Your task to perform on an android device: Go to location settings Image 0: 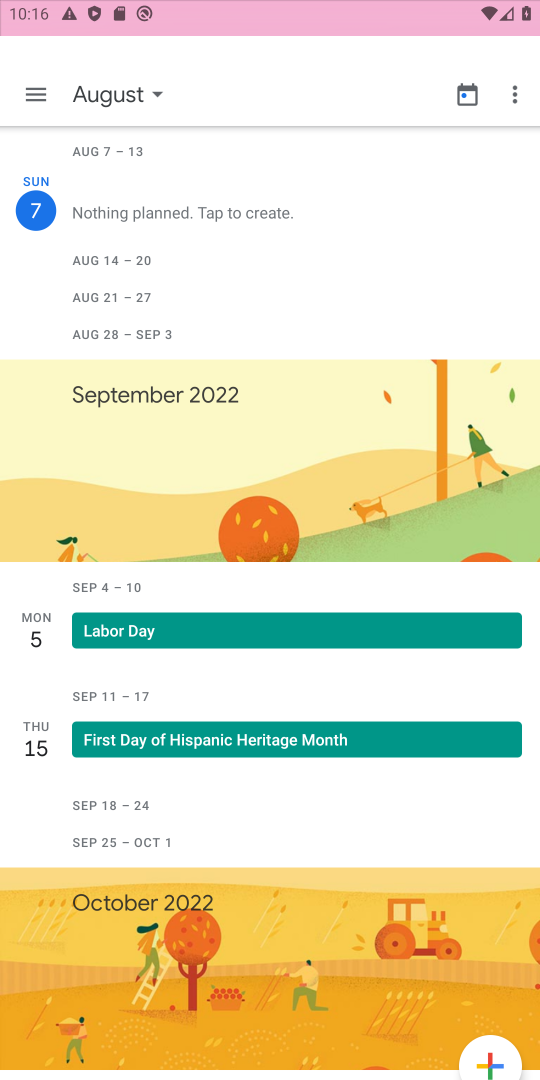
Step 0: press back button
Your task to perform on an android device: Go to location settings Image 1: 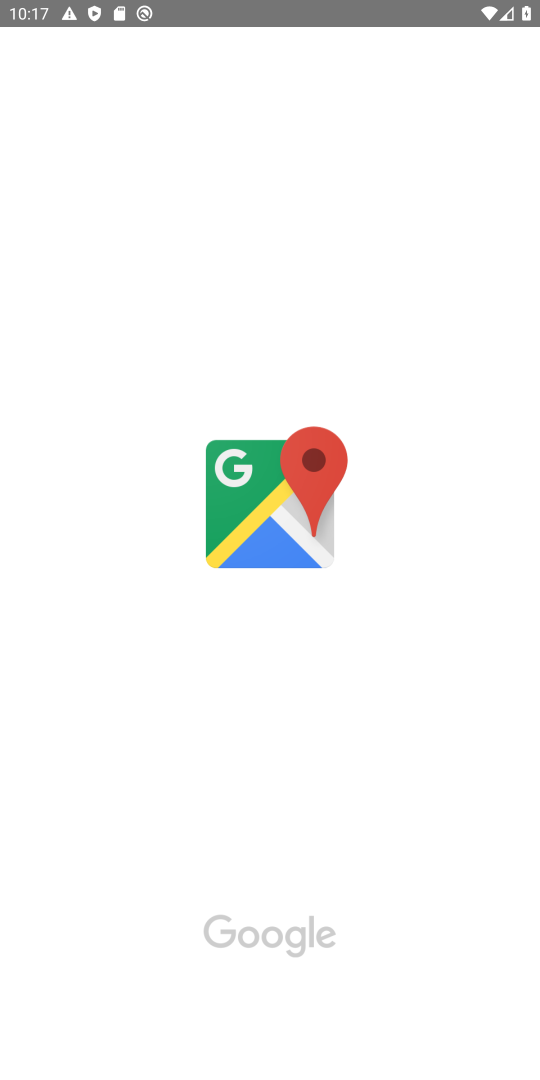
Step 1: press back button
Your task to perform on an android device: Go to location settings Image 2: 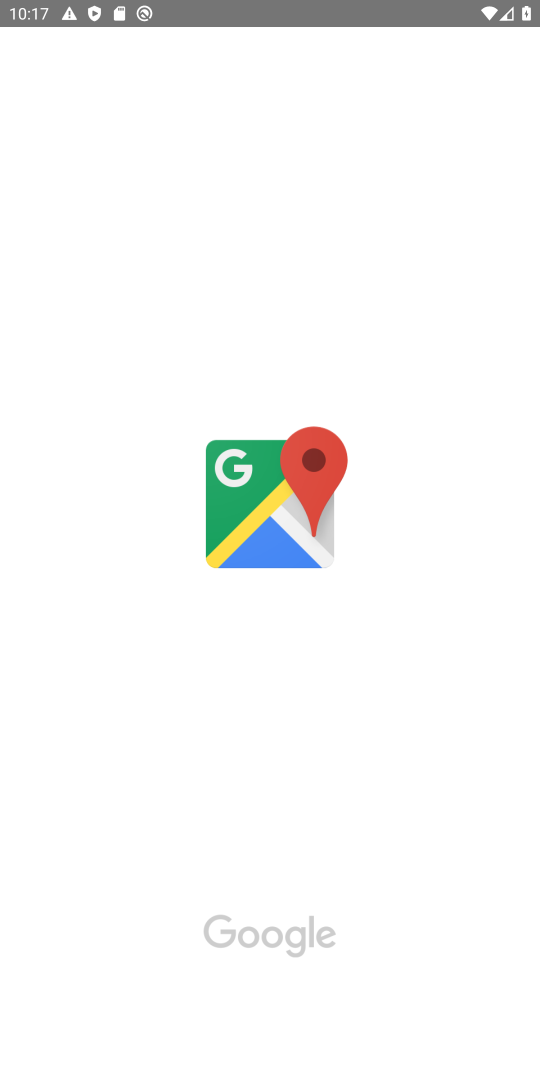
Step 2: press home button
Your task to perform on an android device: Go to location settings Image 3: 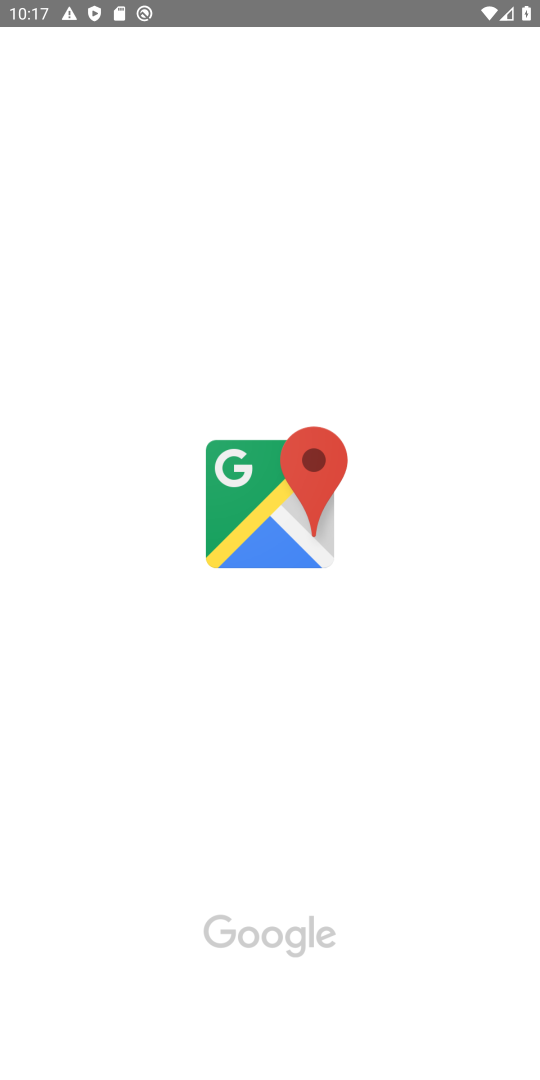
Step 3: press back button
Your task to perform on an android device: Go to location settings Image 4: 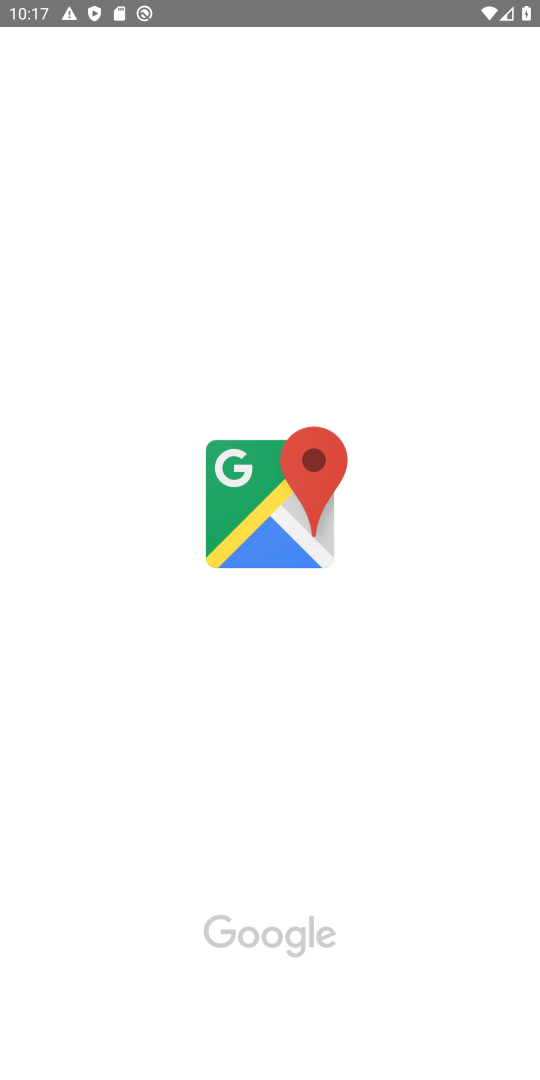
Step 4: press home button
Your task to perform on an android device: Go to location settings Image 5: 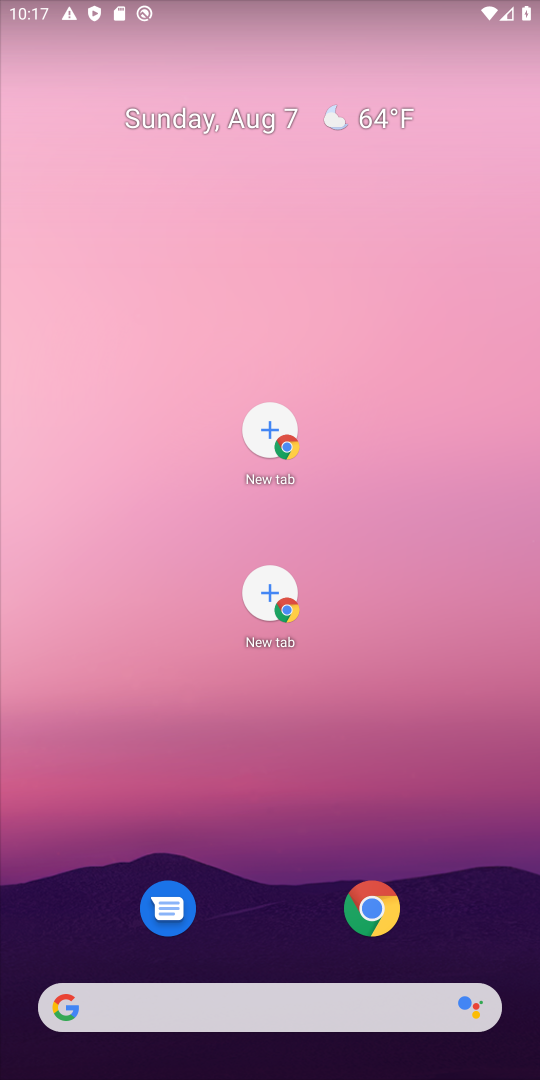
Step 5: drag from (276, 8) to (232, 123)
Your task to perform on an android device: Go to location settings Image 6: 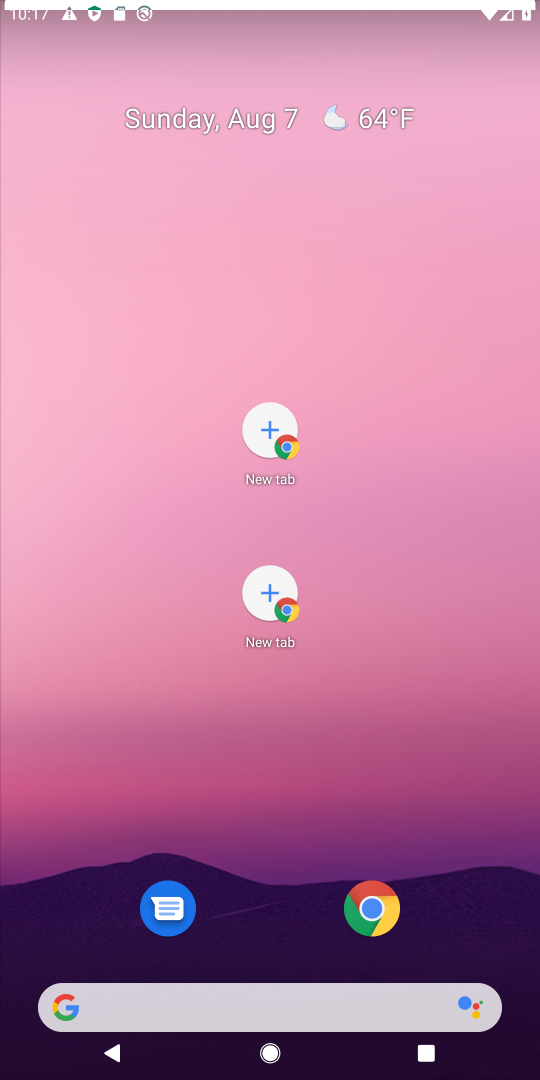
Step 6: drag from (261, 273) to (396, 281)
Your task to perform on an android device: Go to location settings Image 7: 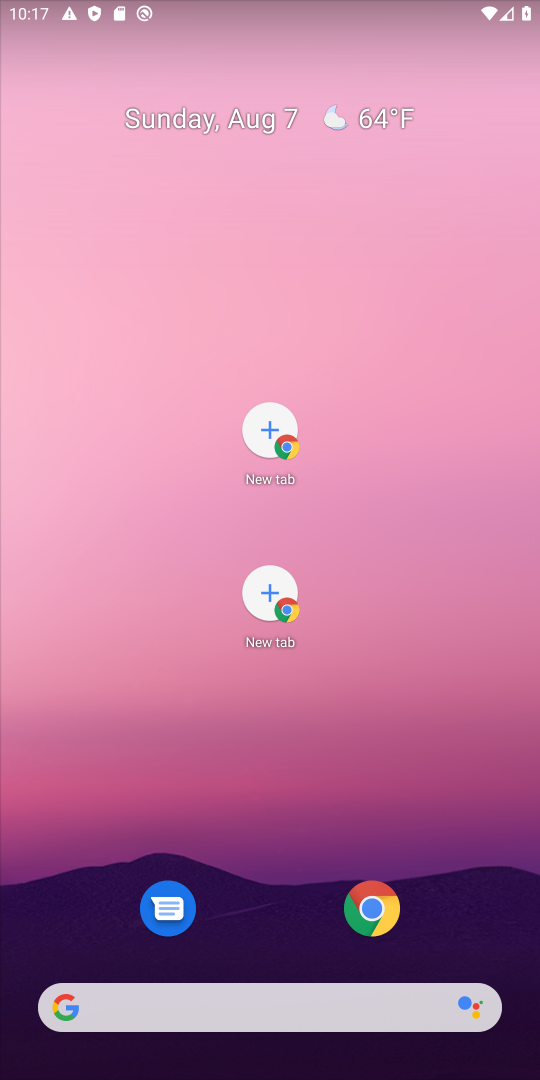
Step 7: press back button
Your task to perform on an android device: Go to location settings Image 8: 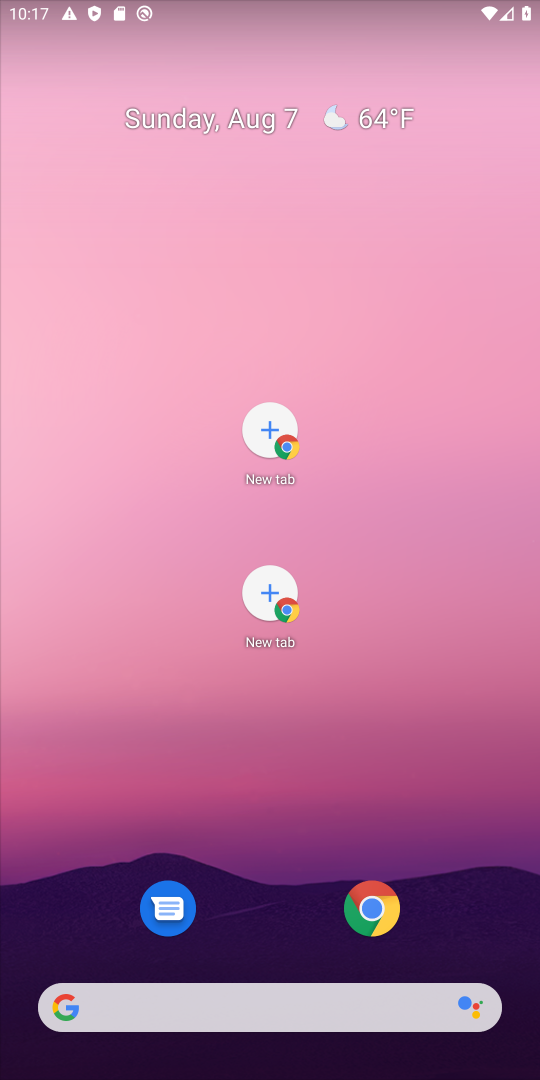
Step 8: press back button
Your task to perform on an android device: Go to location settings Image 9: 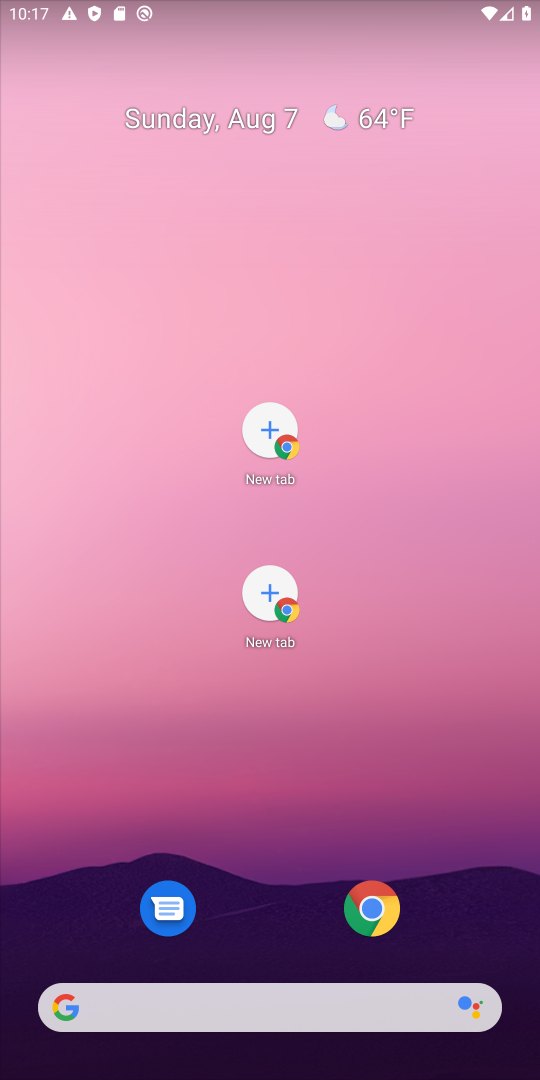
Step 9: press back button
Your task to perform on an android device: Go to location settings Image 10: 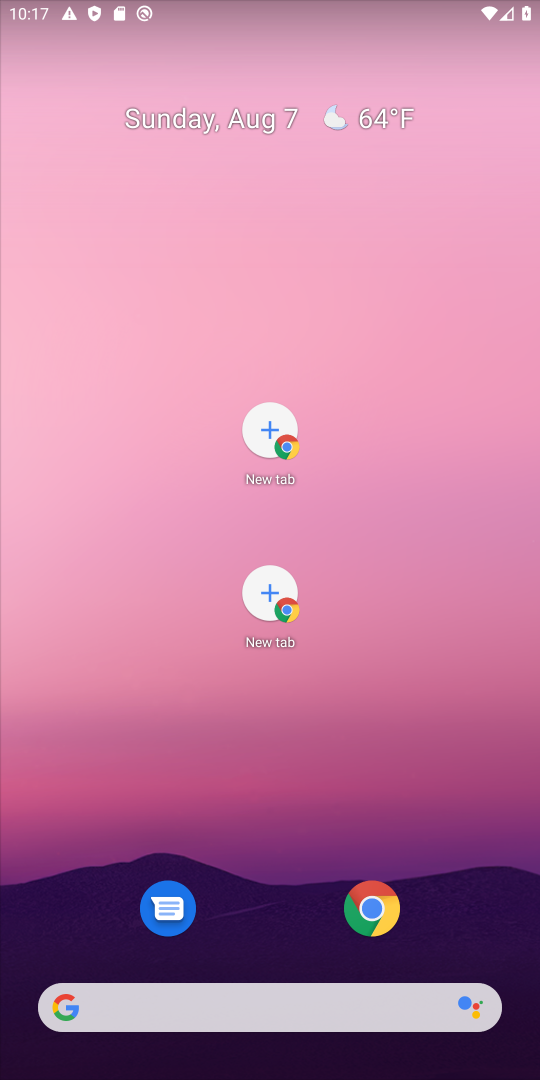
Step 10: press back button
Your task to perform on an android device: Go to location settings Image 11: 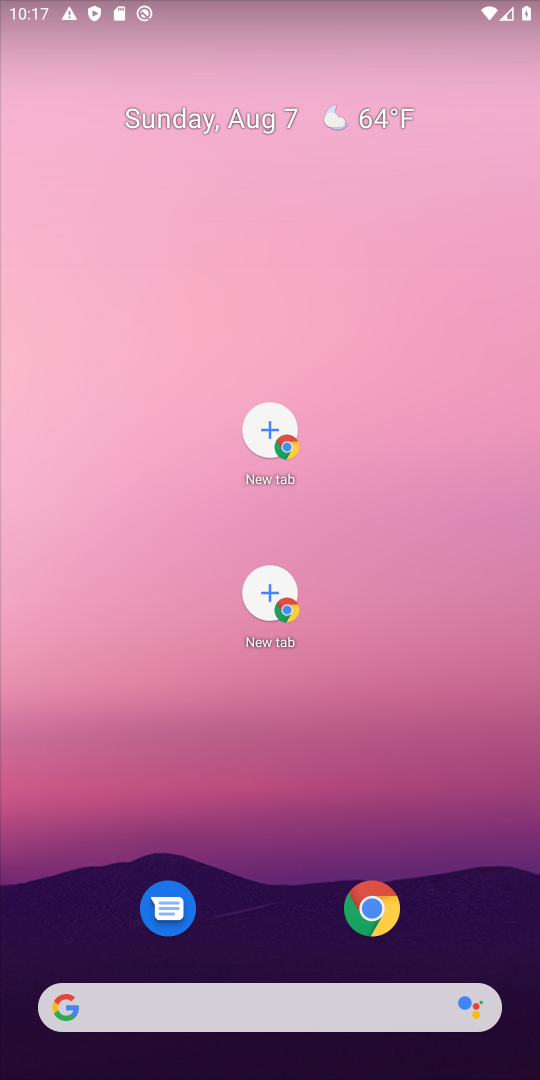
Step 11: press back button
Your task to perform on an android device: Go to location settings Image 12: 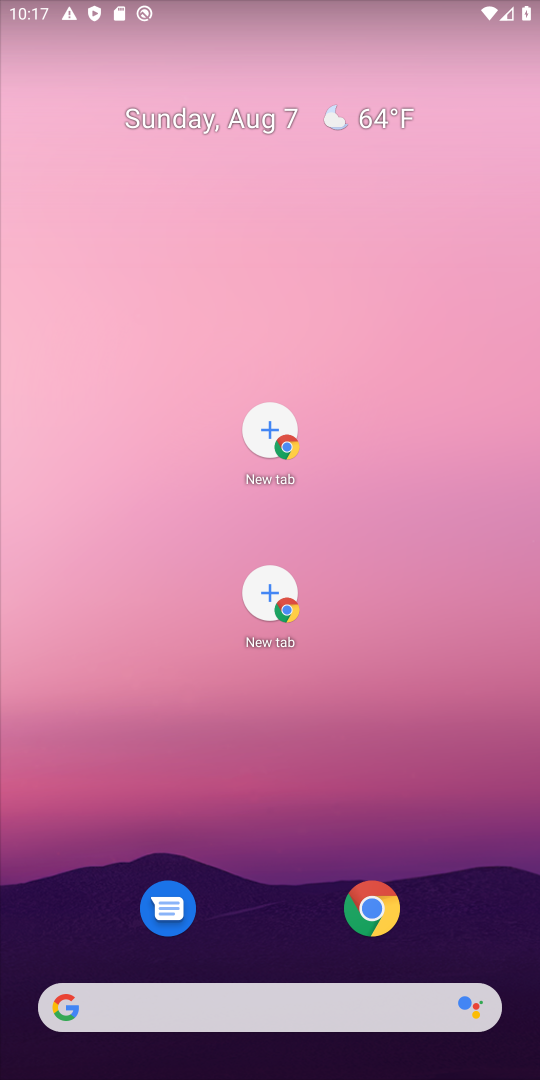
Step 12: press back button
Your task to perform on an android device: Go to location settings Image 13: 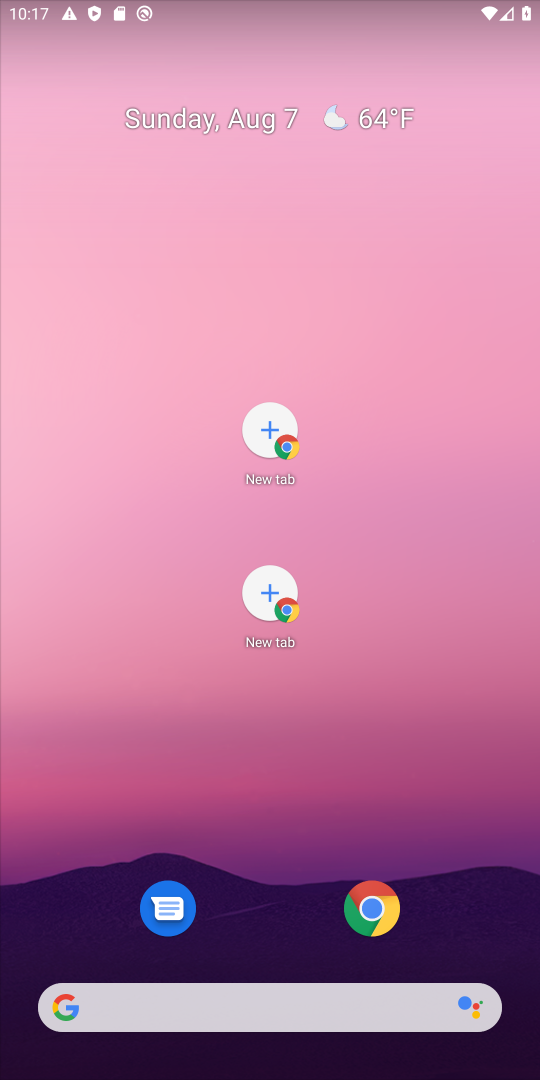
Step 13: press back button
Your task to perform on an android device: Go to location settings Image 14: 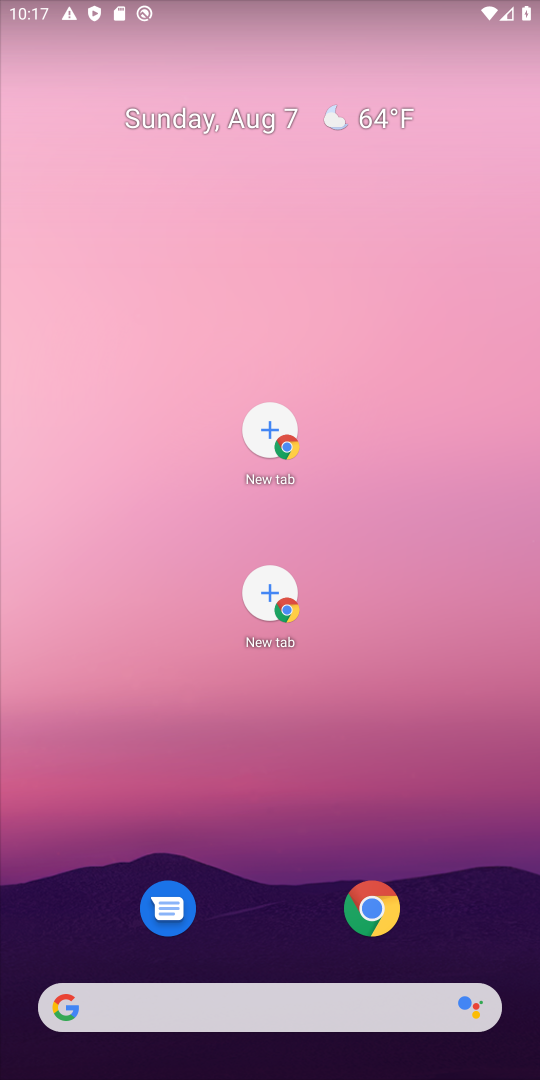
Step 14: press home button
Your task to perform on an android device: Go to location settings Image 15: 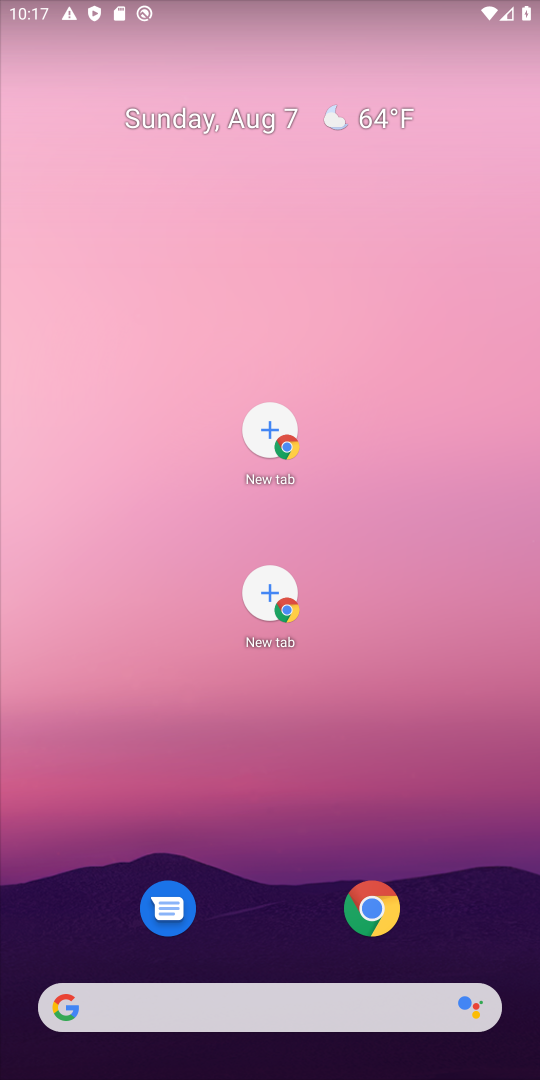
Step 15: press back button
Your task to perform on an android device: Go to location settings Image 16: 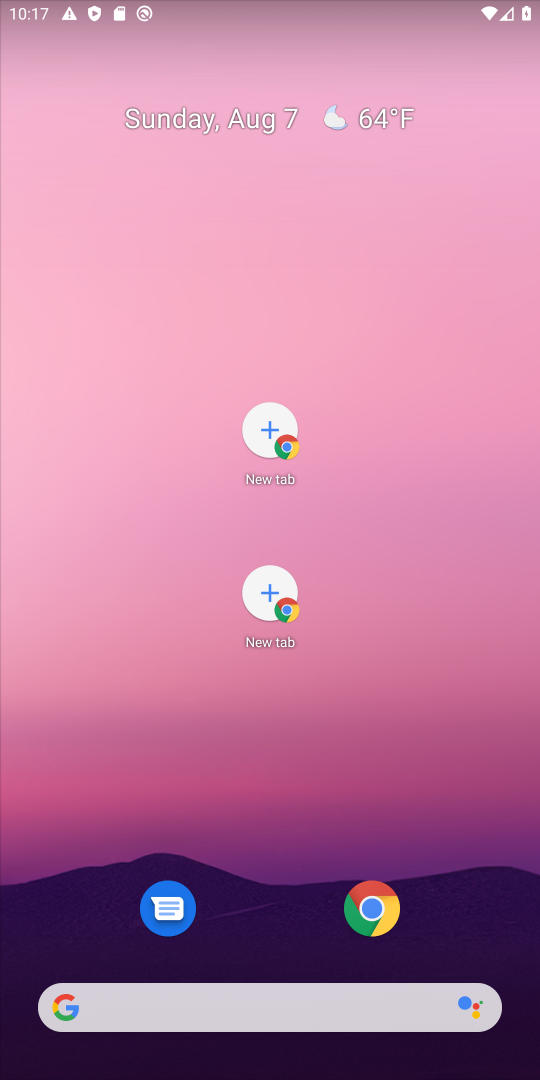
Step 16: drag from (406, 59) to (269, 95)
Your task to perform on an android device: Go to location settings Image 17: 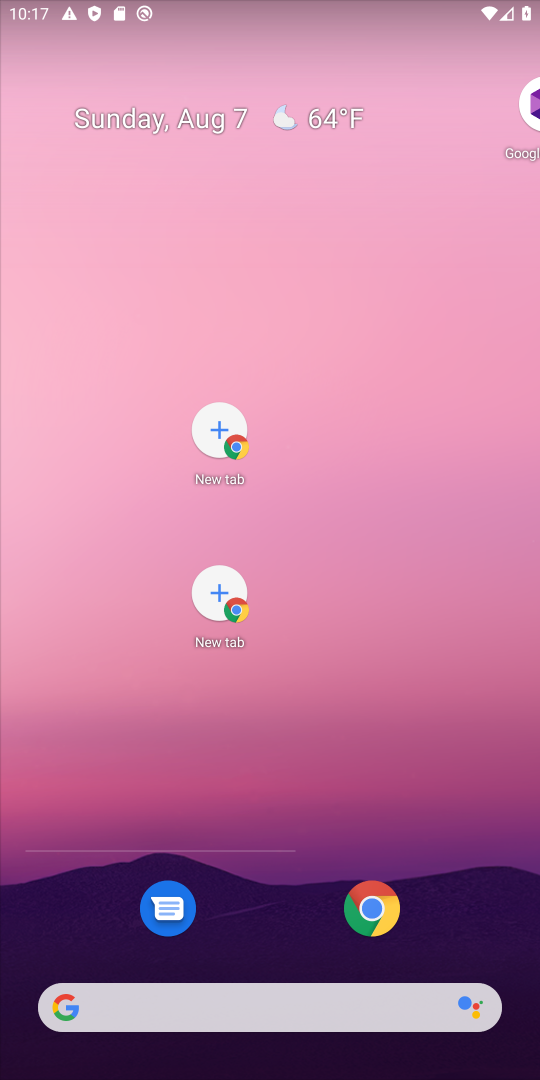
Step 17: drag from (261, 373) to (261, 284)
Your task to perform on an android device: Go to location settings Image 18: 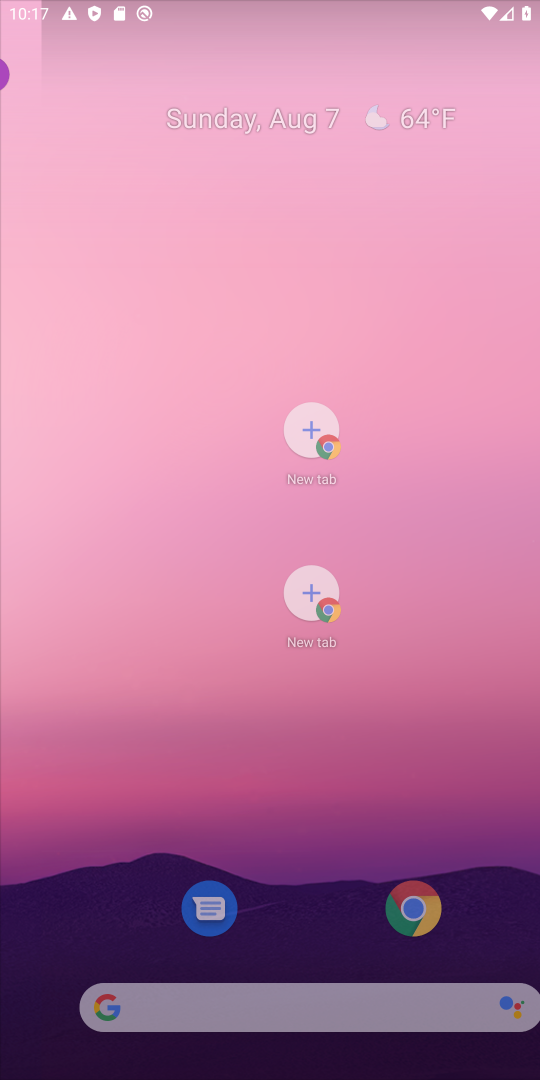
Step 18: drag from (312, 679) to (250, 227)
Your task to perform on an android device: Go to location settings Image 19: 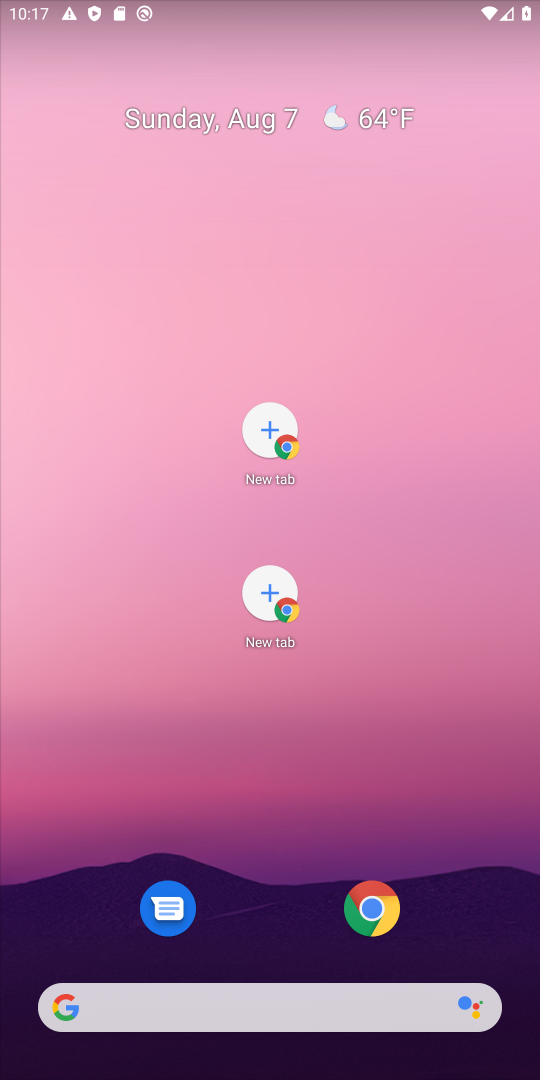
Step 19: drag from (253, 652) to (222, 164)
Your task to perform on an android device: Go to location settings Image 20: 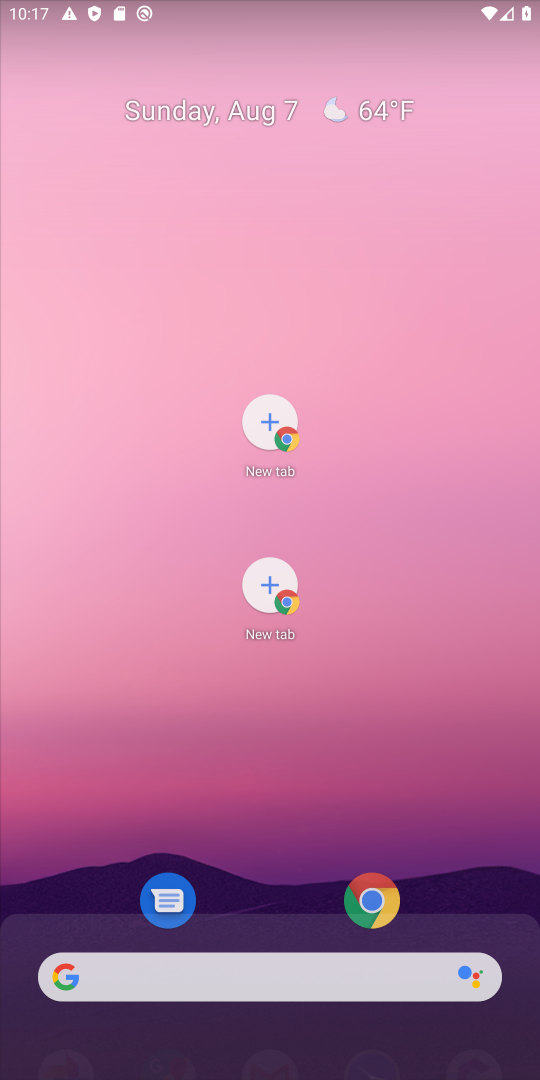
Step 20: drag from (288, 749) to (288, 83)
Your task to perform on an android device: Go to location settings Image 21: 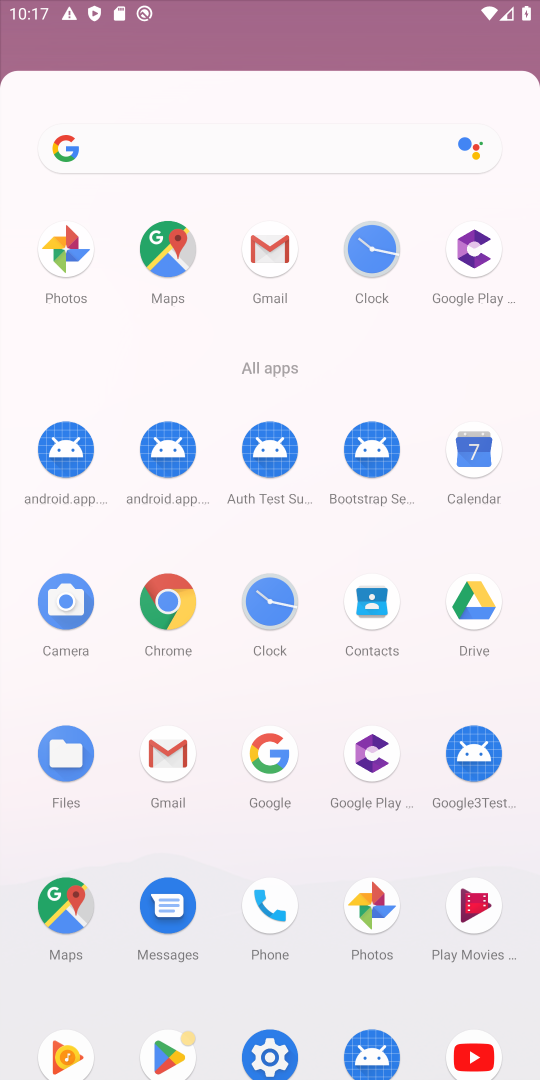
Step 21: drag from (282, 651) to (235, 58)
Your task to perform on an android device: Go to location settings Image 22: 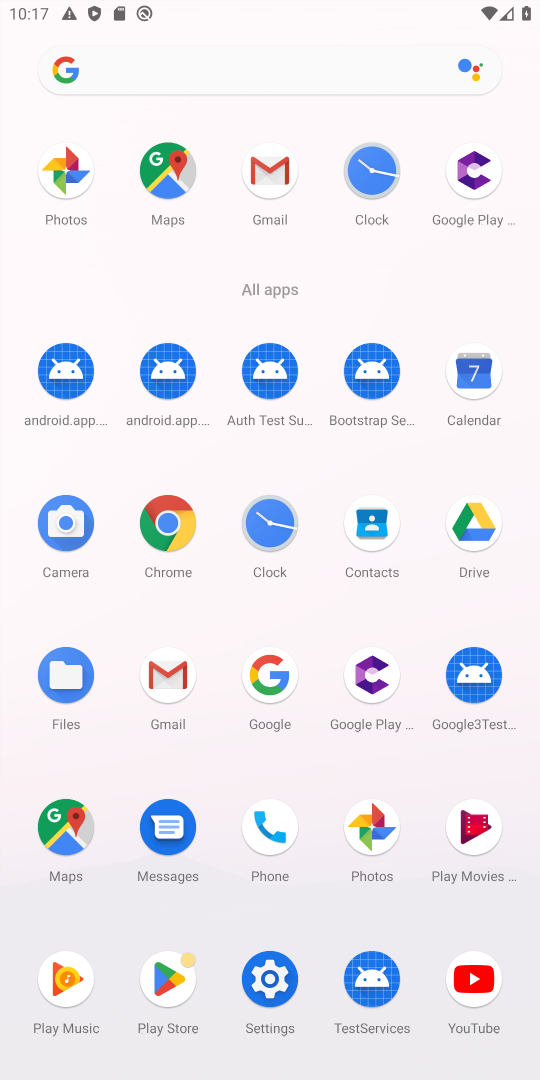
Step 22: drag from (340, 583) to (340, 105)
Your task to perform on an android device: Go to location settings Image 23: 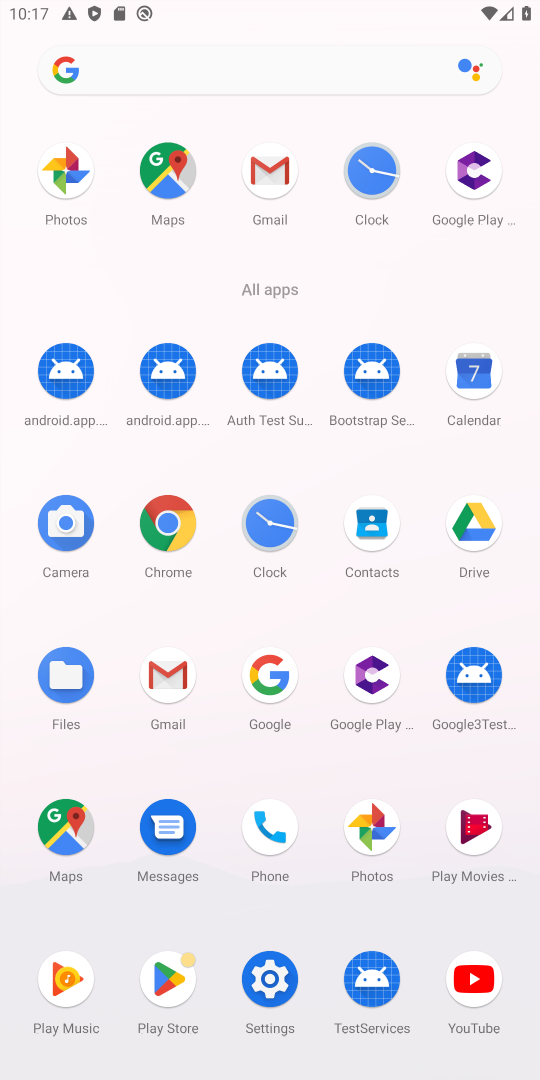
Step 23: click (253, 996)
Your task to perform on an android device: Go to location settings Image 24: 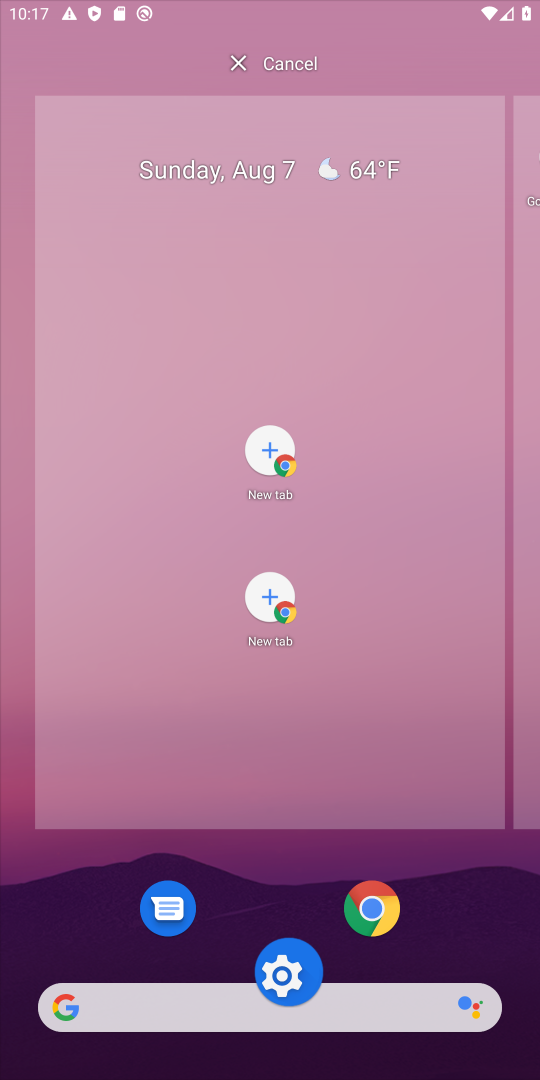
Step 24: click (274, 986)
Your task to perform on an android device: Go to location settings Image 25: 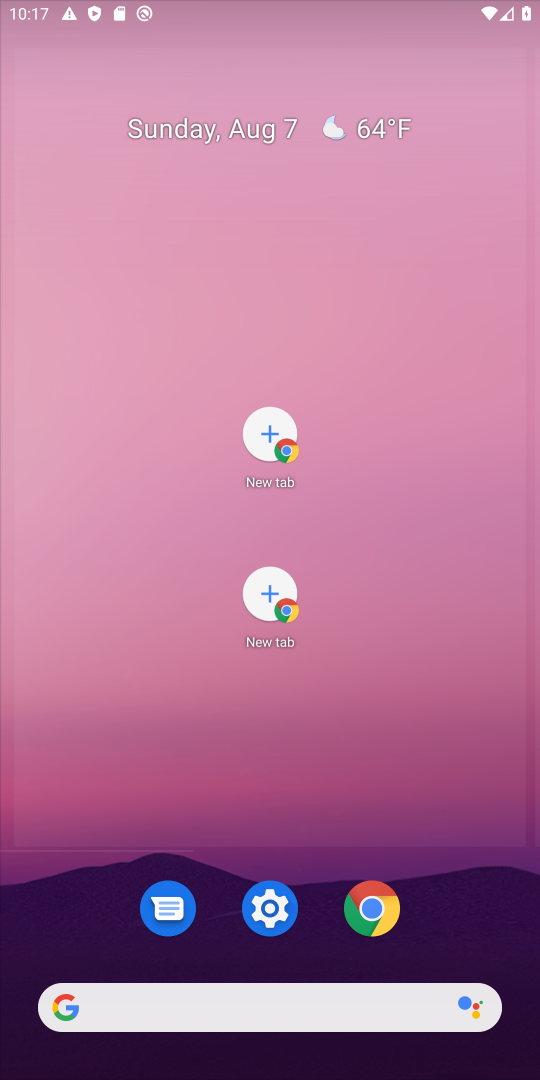
Step 25: click (287, 974)
Your task to perform on an android device: Go to location settings Image 26: 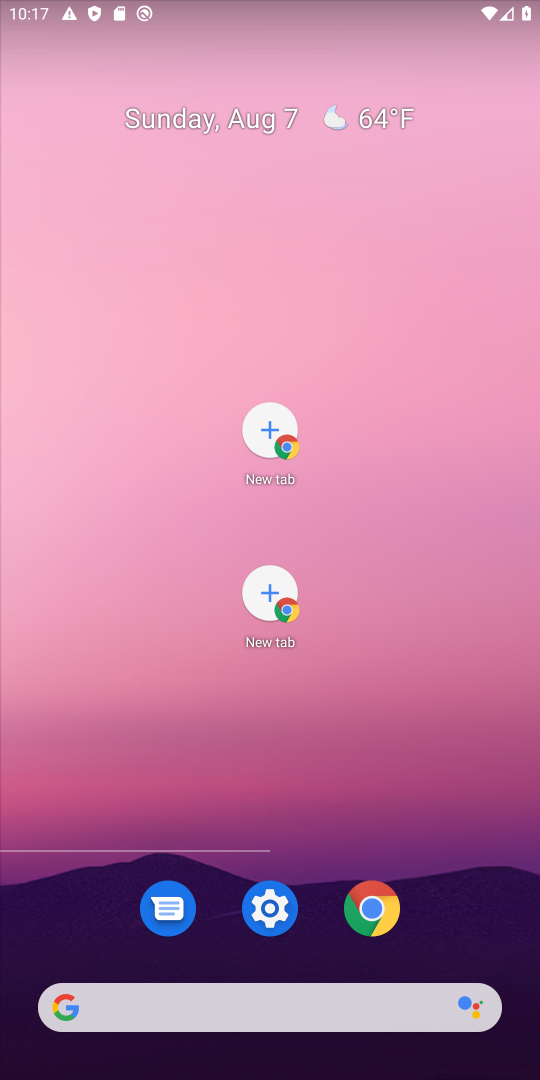
Step 26: click (287, 926)
Your task to perform on an android device: Go to location settings Image 27: 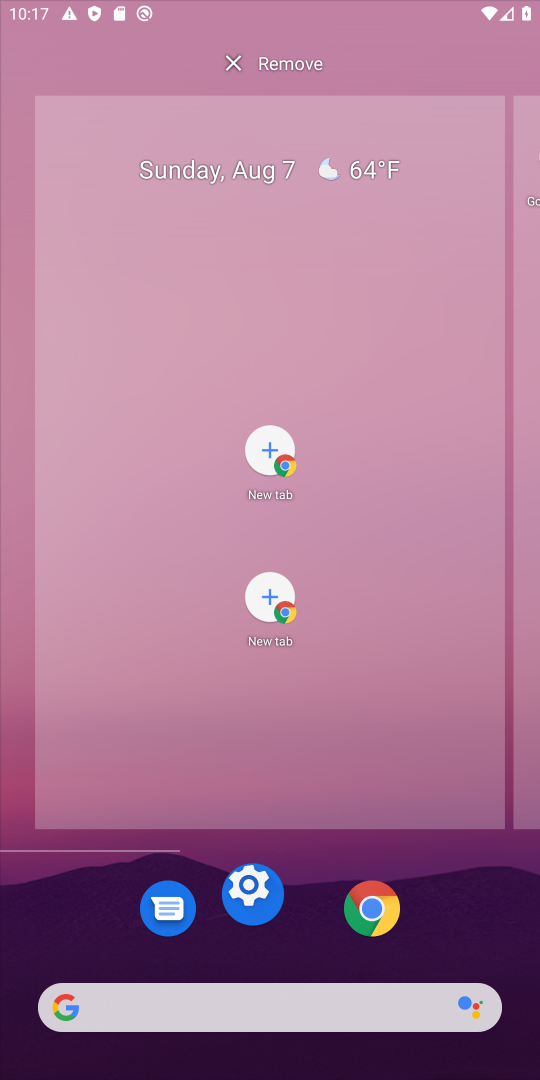
Step 27: click (269, 903)
Your task to perform on an android device: Go to location settings Image 28: 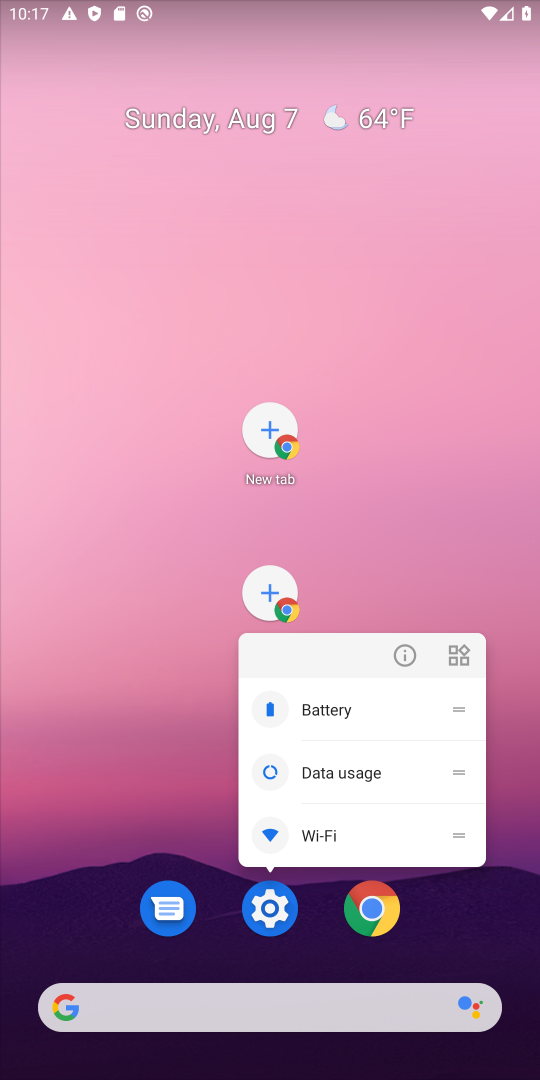
Step 28: drag from (266, 896) to (142, 191)
Your task to perform on an android device: Go to location settings Image 29: 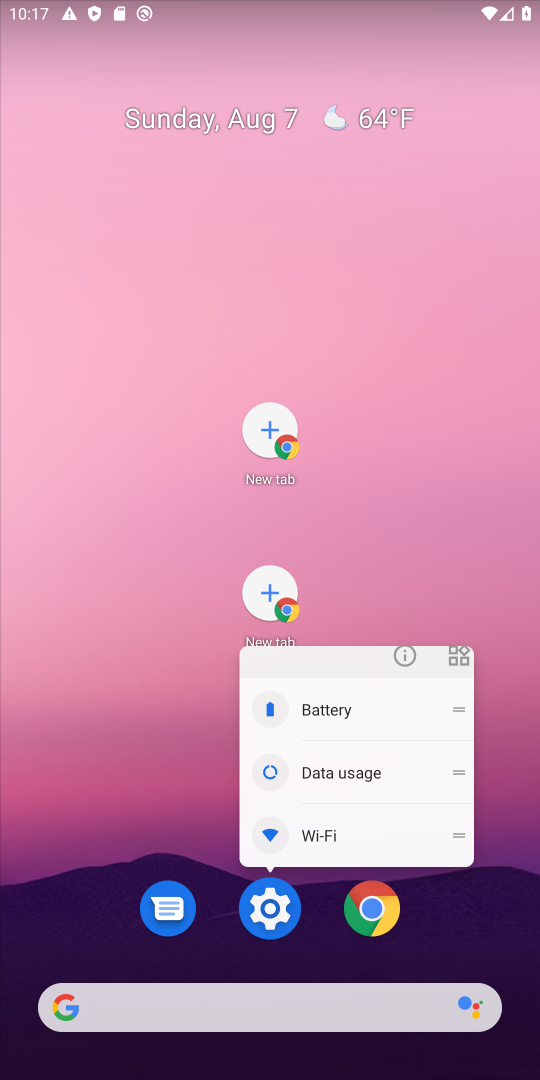
Step 29: drag from (265, 807) to (186, 73)
Your task to perform on an android device: Go to location settings Image 30: 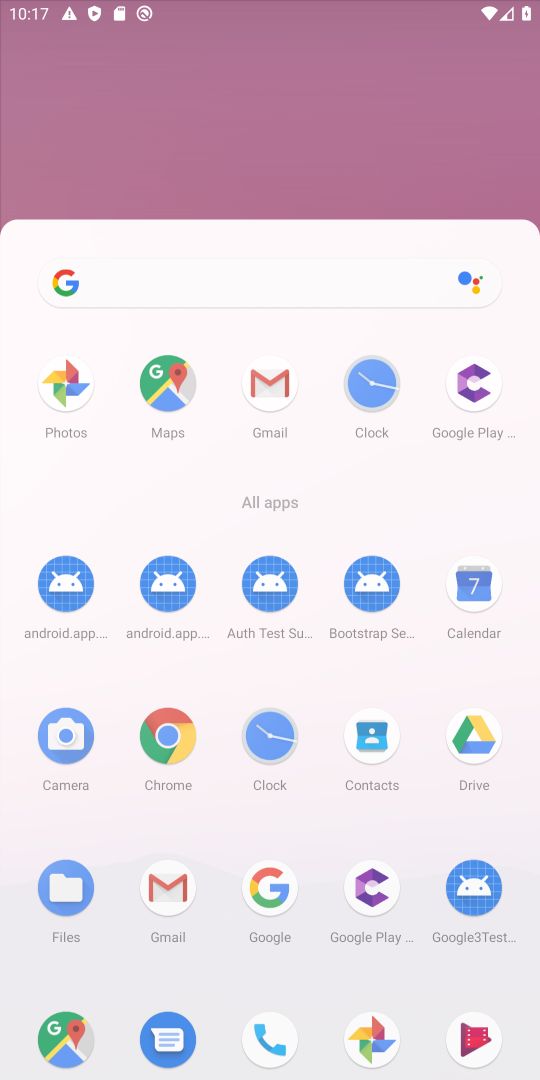
Step 30: drag from (260, 1) to (291, 235)
Your task to perform on an android device: Go to location settings Image 31: 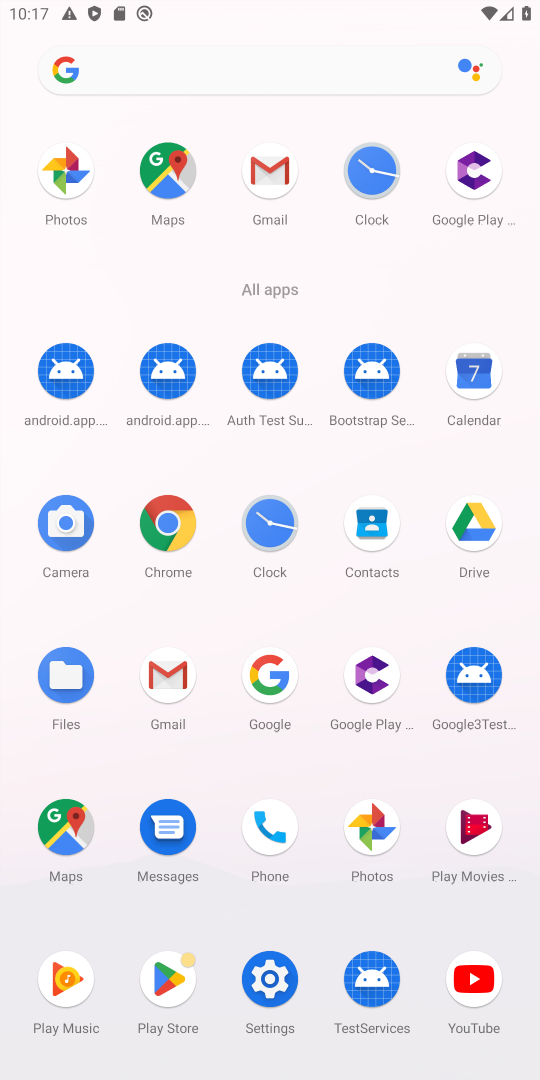
Step 31: click (257, 965)
Your task to perform on an android device: Go to location settings Image 32: 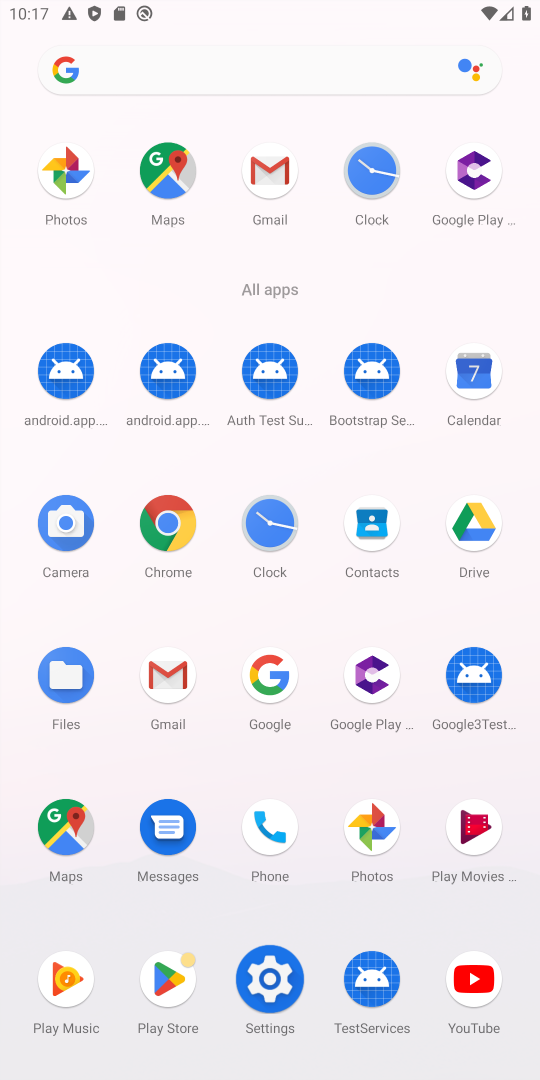
Step 32: click (274, 980)
Your task to perform on an android device: Go to location settings Image 33: 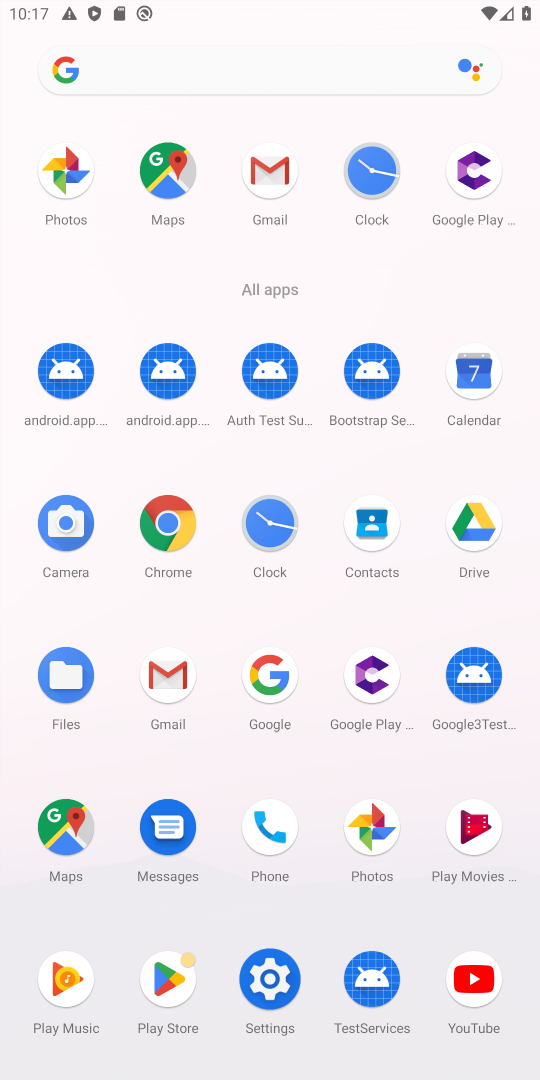
Step 33: click (291, 979)
Your task to perform on an android device: Go to location settings Image 34: 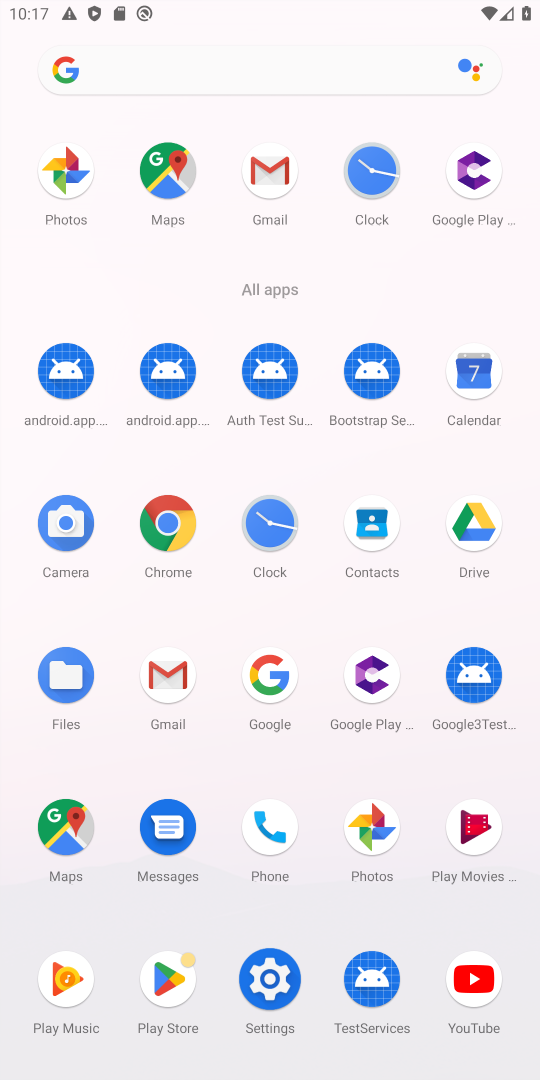
Step 34: click (265, 987)
Your task to perform on an android device: Go to location settings Image 35: 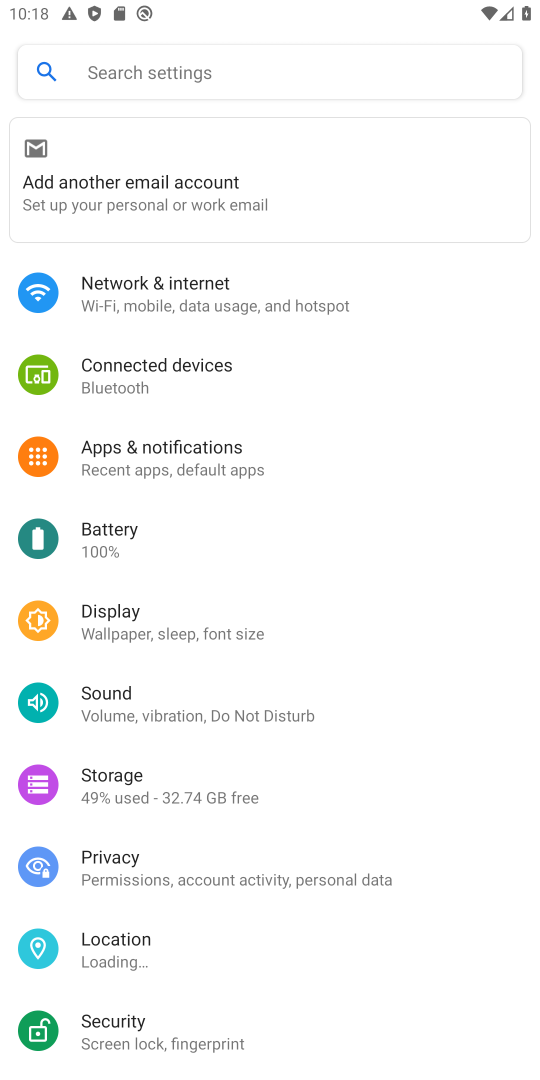
Step 35: click (136, 931)
Your task to perform on an android device: Go to location settings Image 36: 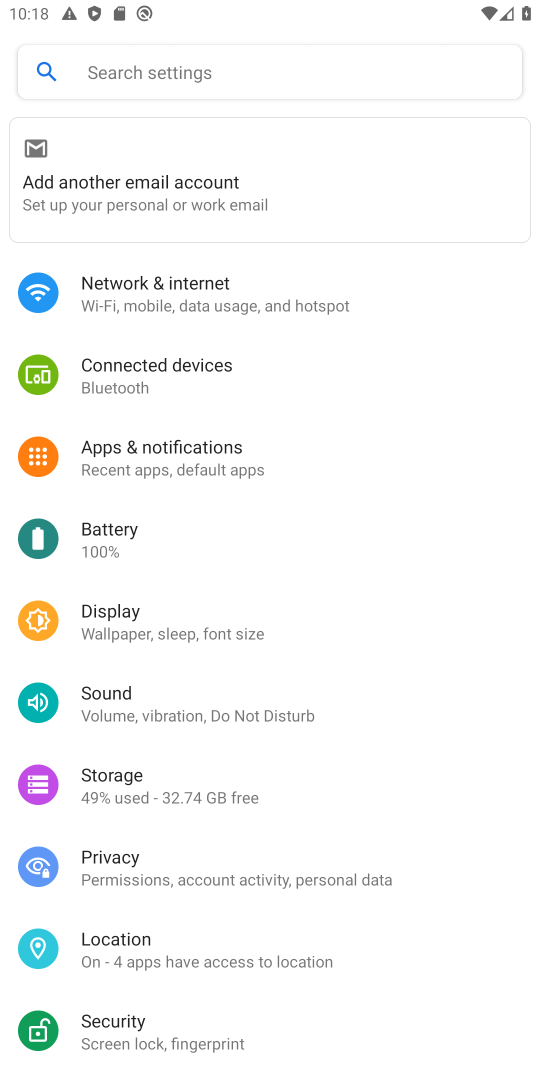
Step 36: click (128, 944)
Your task to perform on an android device: Go to location settings Image 37: 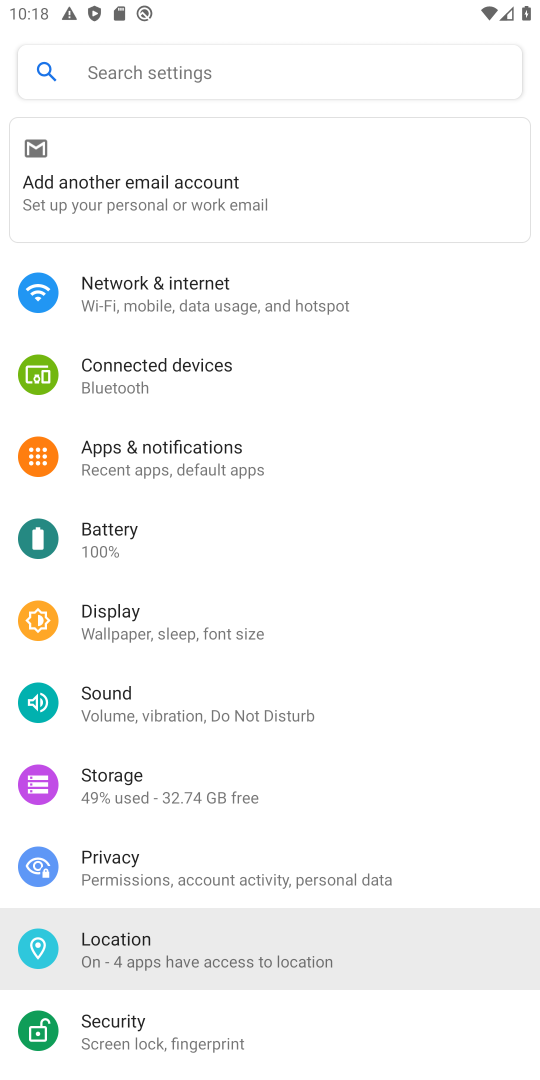
Step 37: click (130, 952)
Your task to perform on an android device: Go to location settings Image 38: 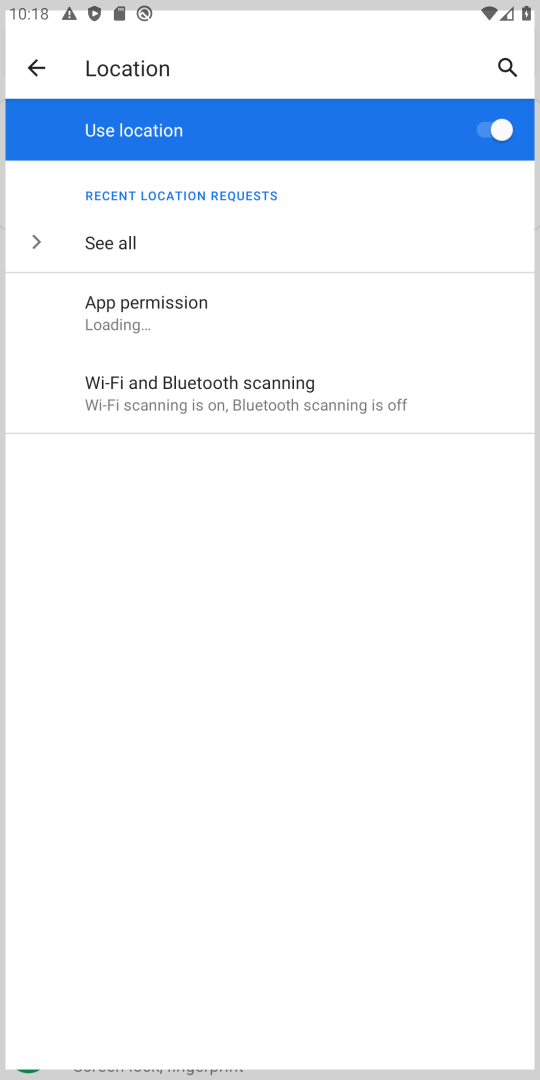
Step 38: click (130, 952)
Your task to perform on an android device: Go to location settings Image 39: 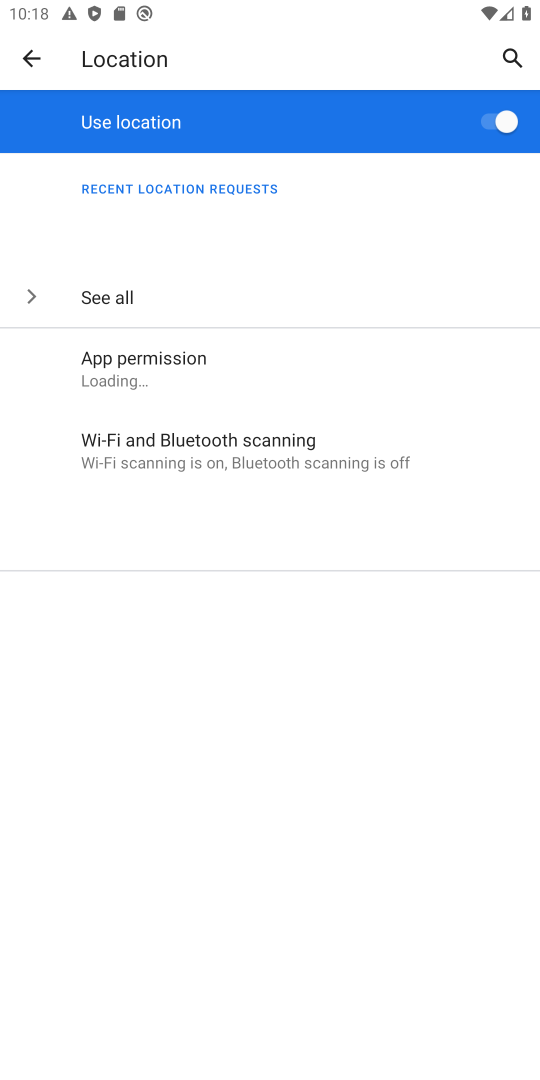
Step 39: click (130, 952)
Your task to perform on an android device: Go to location settings Image 40: 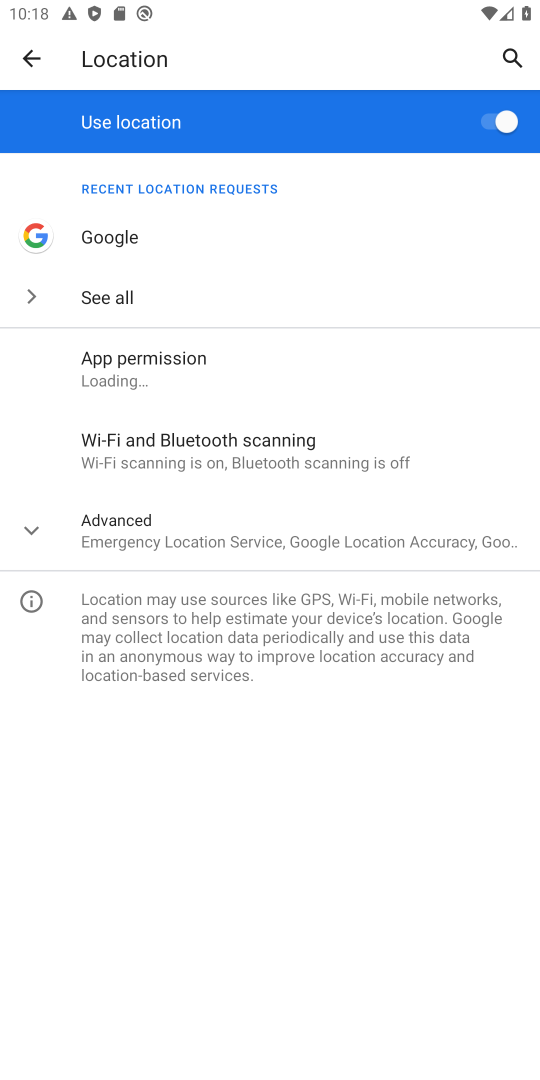
Step 40: task complete